Your task to perform on an android device: What time is it in Tokyo? Image 0: 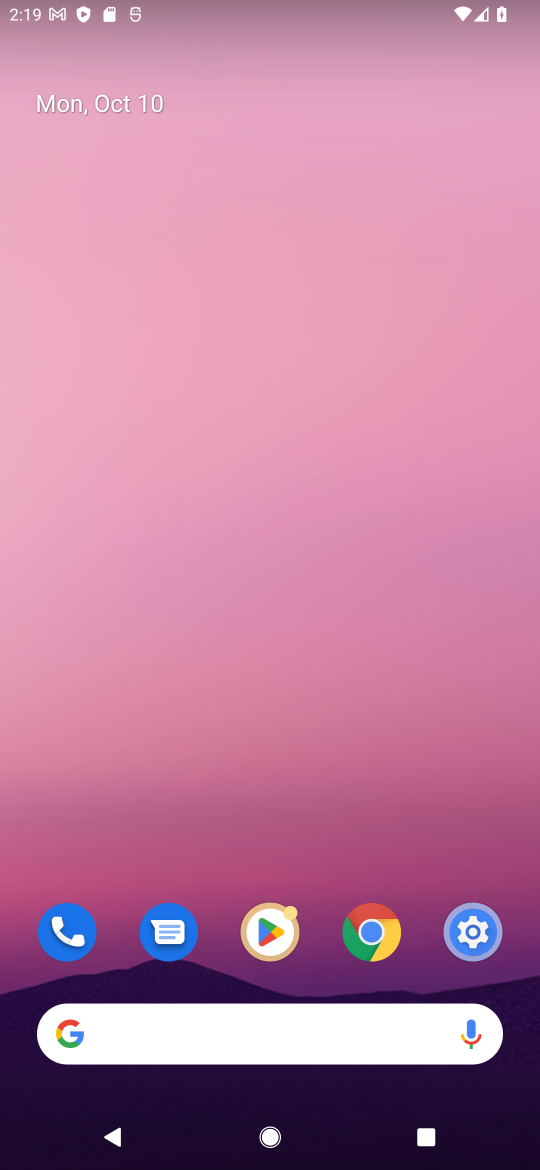
Step 0: click (235, 1039)
Your task to perform on an android device: What time is it in Tokyo? Image 1: 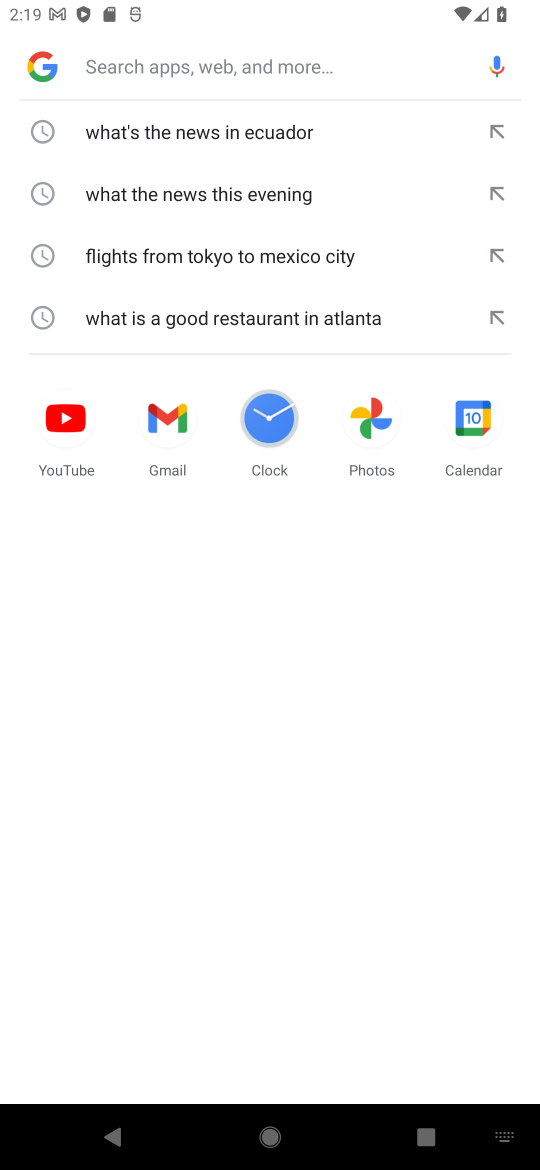
Step 1: type "What time is it in Tokyo?"
Your task to perform on an android device: What time is it in Tokyo? Image 2: 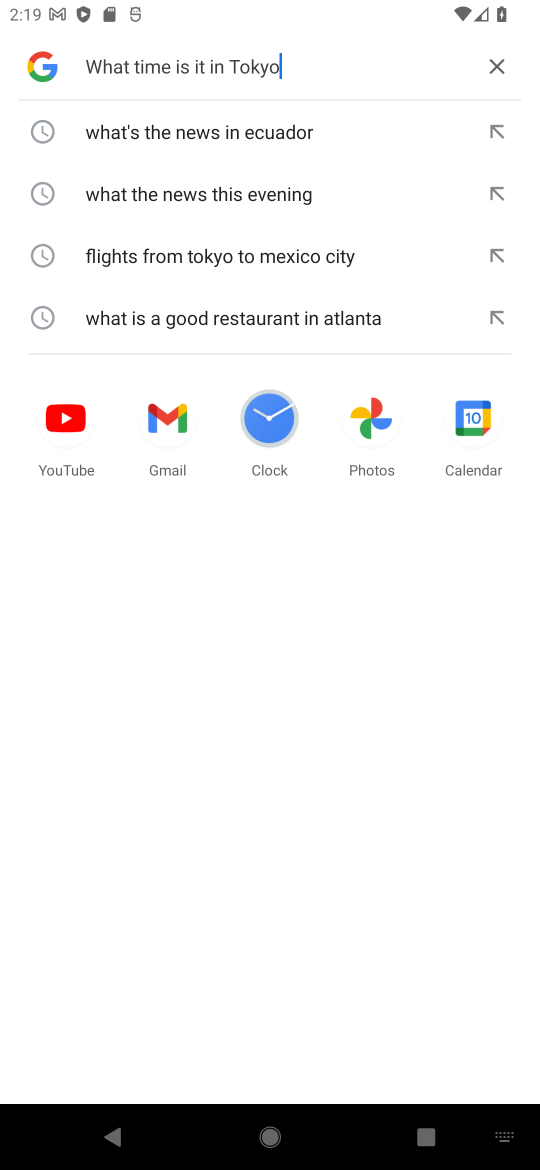
Step 2: press enter
Your task to perform on an android device: What time is it in Tokyo? Image 3: 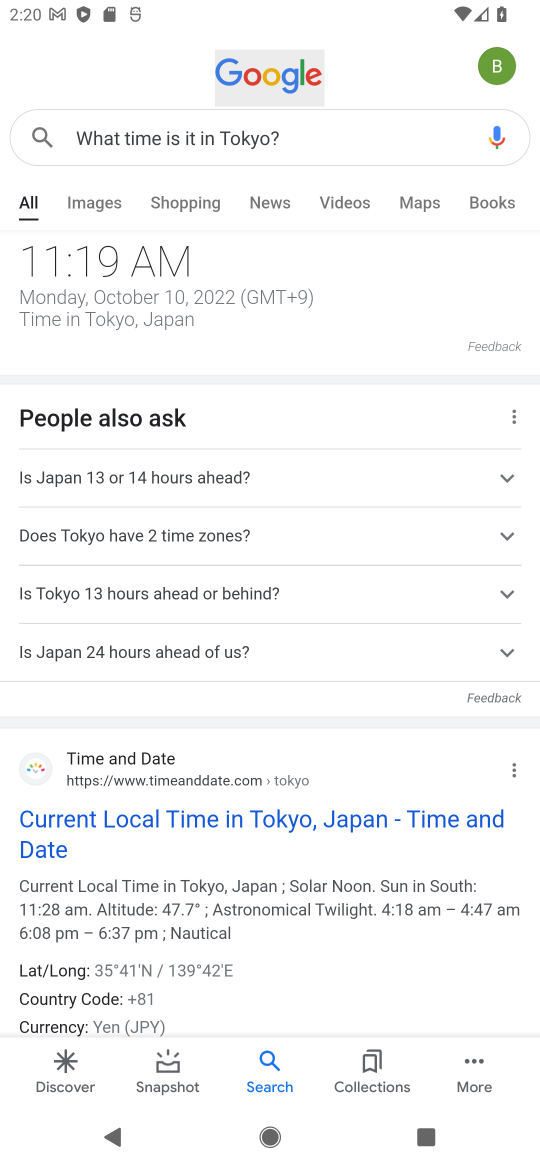
Step 3: task complete